Your task to perform on an android device: Go to wifi settings Image 0: 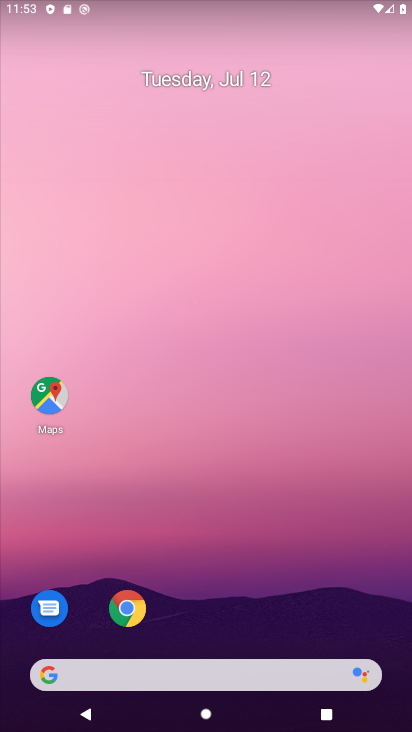
Step 0: drag from (72, 11) to (167, 629)
Your task to perform on an android device: Go to wifi settings Image 1: 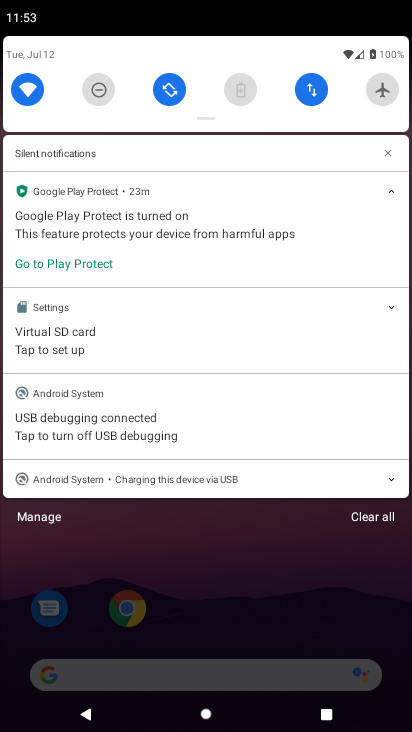
Step 1: click (31, 84)
Your task to perform on an android device: Go to wifi settings Image 2: 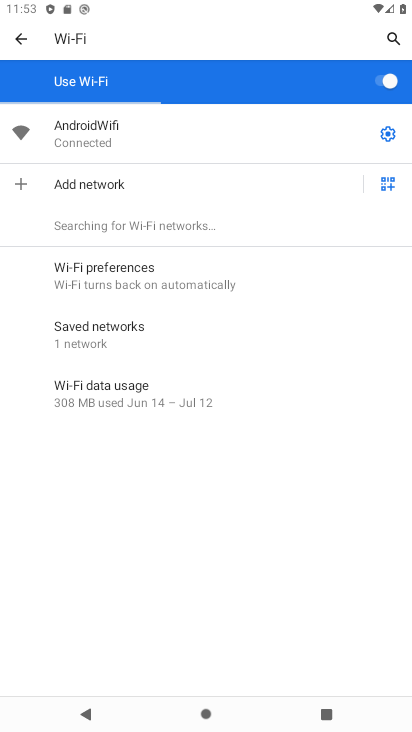
Step 2: task complete